Your task to perform on an android device: turn off data saver in the chrome app Image 0: 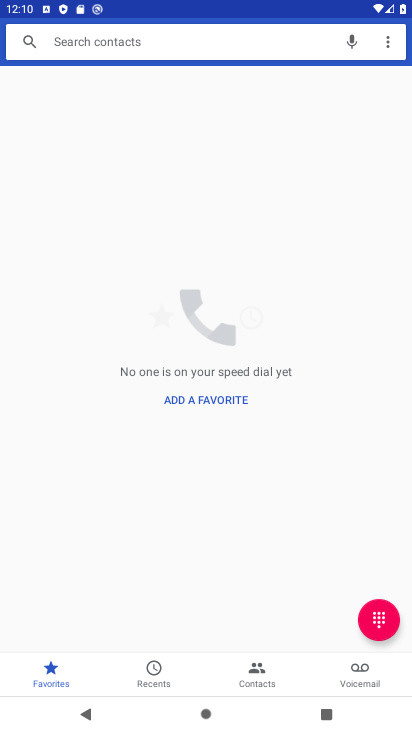
Step 0: press home button
Your task to perform on an android device: turn off data saver in the chrome app Image 1: 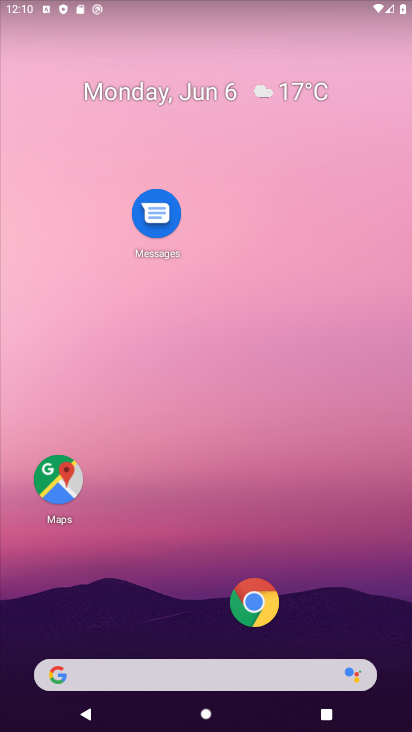
Step 1: click (281, 609)
Your task to perform on an android device: turn off data saver in the chrome app Image 2: 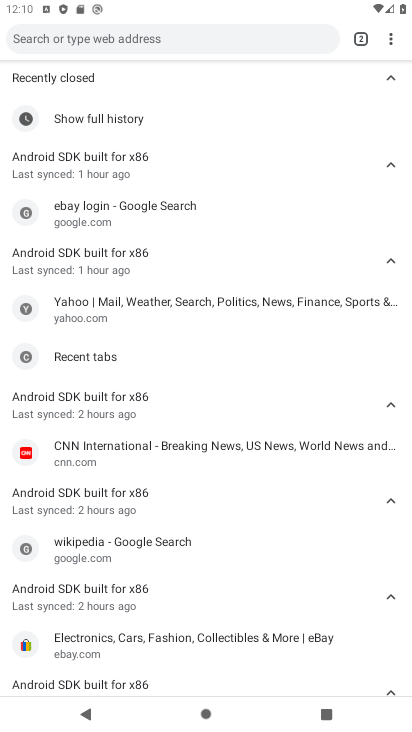
Step 2: click (400, 42)
Your task to perform on an android device: turn off data saver in the chrome app Image 3: 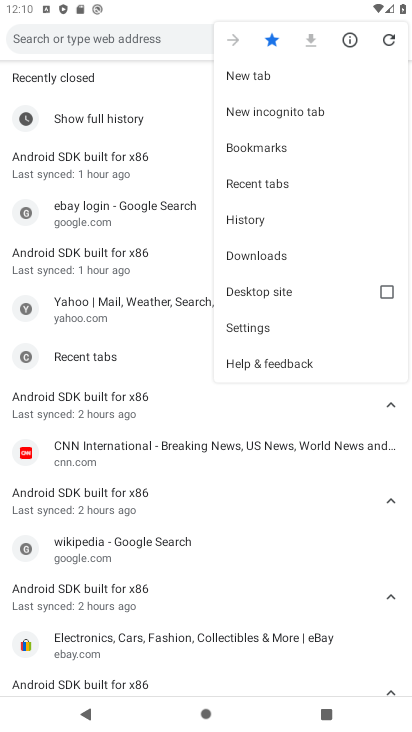
Step 3: click (287, 337)
Your task to perform on an android device: turn off data saver in the chrome app Image 4: 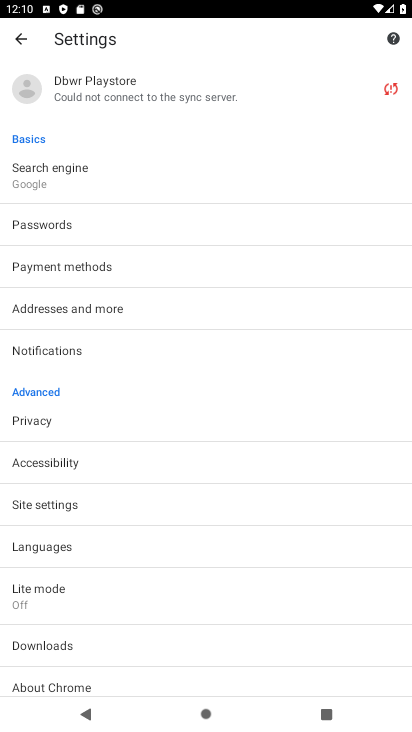
Step 4: click (192, 592)
Your task to perform on an android device: turn off data saver in the chrome app Image 5: 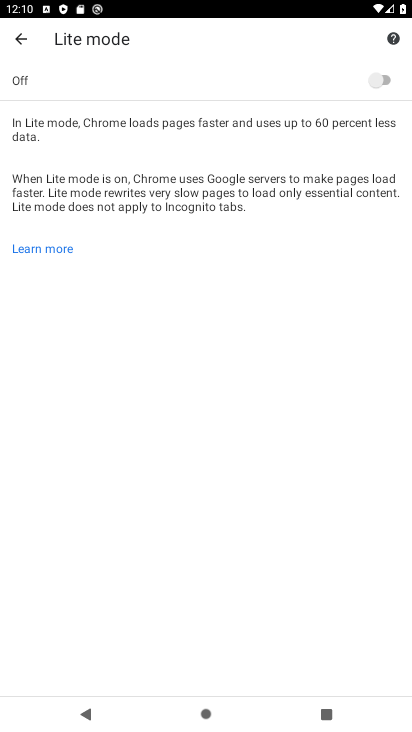
Step 5: click (387, 91)
Your task to perform on an android device: turn off data saver in the chrome app Image 6: 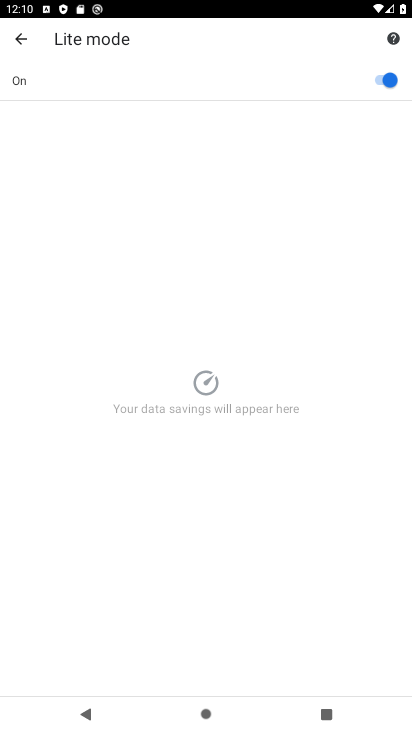
Step 6: task complete